Your task to perform on an android device: empty trash in the gmail app Image 0: 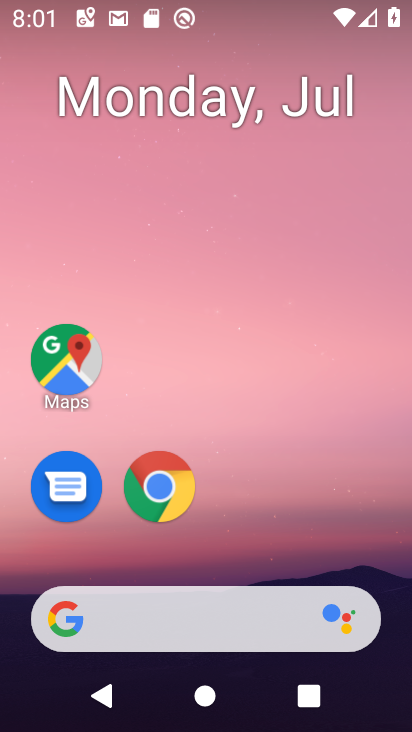
Step 0: drag from (377, 529) to (341, 180)
Your task to perform on an android device: empty trash in the gmail app Image 1: 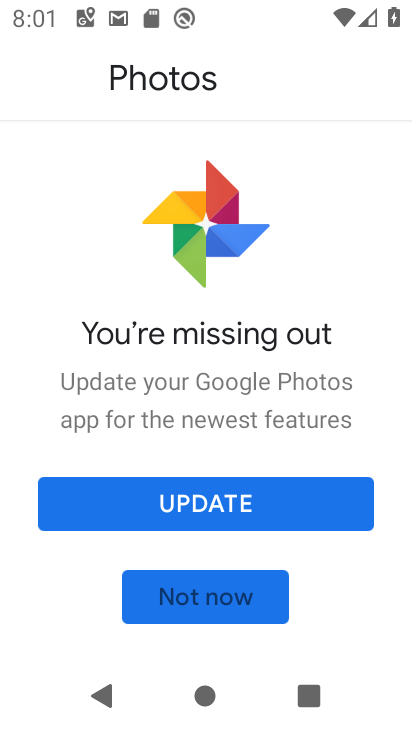
Step 1: press home button
Your task to perform on an android device: empty trash in the gmail app Image 2: 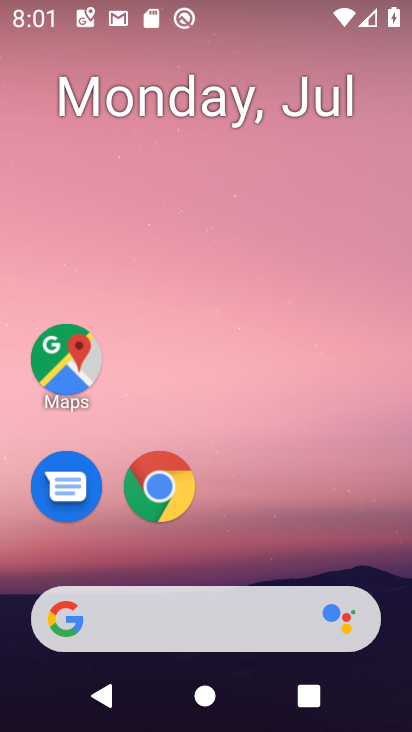
Step 2: drag from (323, 509) to (317, 134)
Your task to perform on an android device: empty trash in the gmail app Image 3: 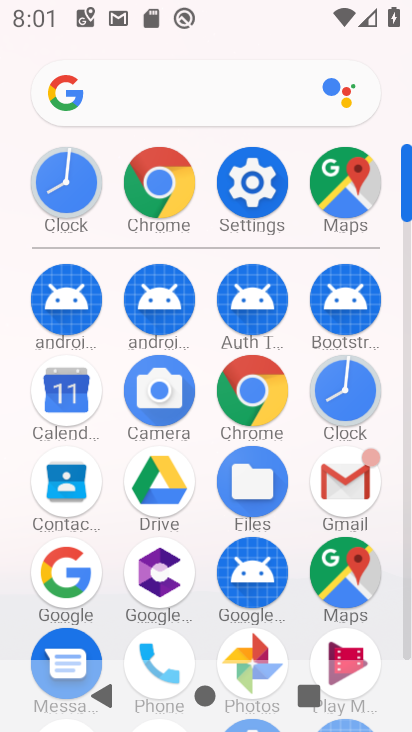
Step 3: click (350, 475)
Your task to perform on an android device: empty trash in the gmail app Image 4: 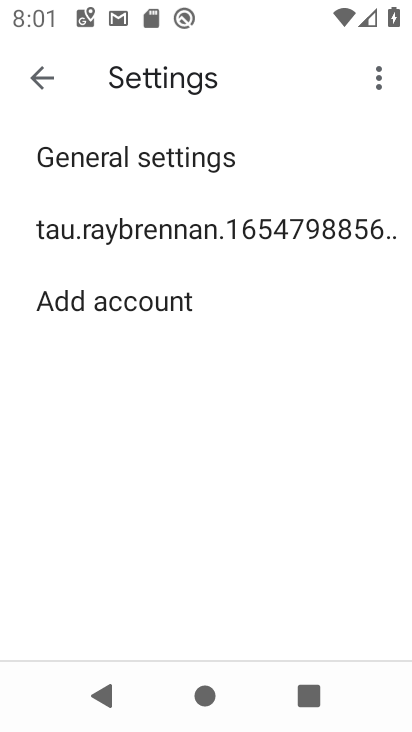
Step 4: press back button
Your task to perform on an android device: empty trash in the gmail app Image 5: 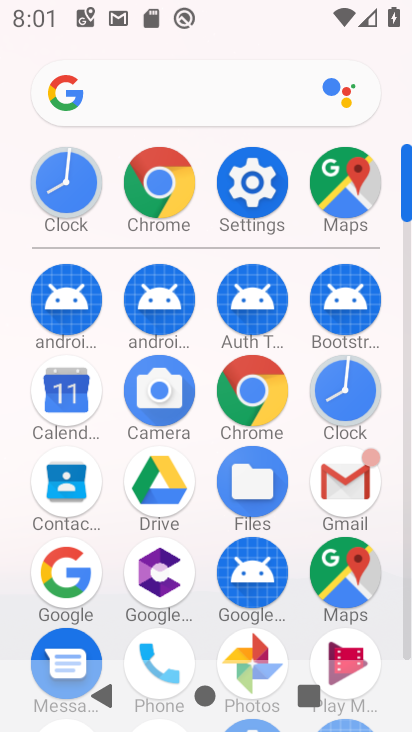
Step 5: click (339, 479)
Your task to perform on an android device: empty trash in the gmail app Image 6: 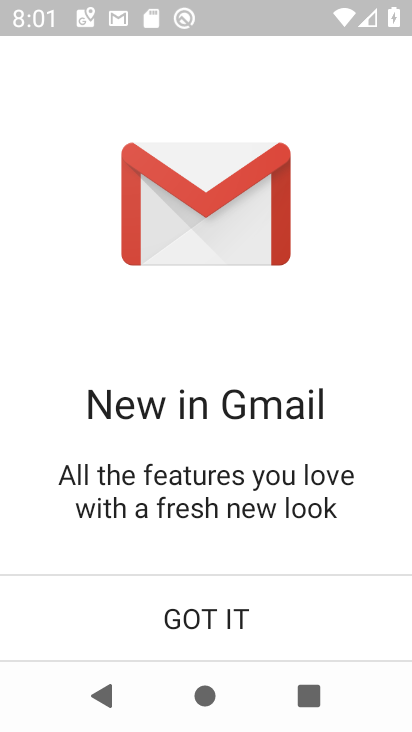
Step 6: click (261, 600)
Your task to perform on an android device: empty trash in the gmail app Image 7: 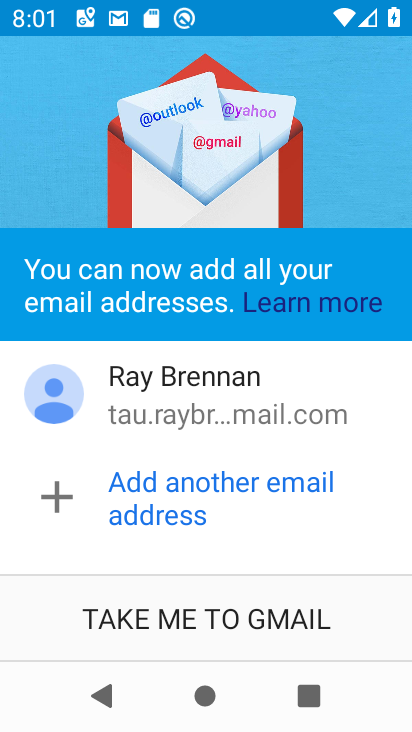
Step 7: click (261, 600)
Your task to perform on an android device: empty trash in the gmail app Image 8: 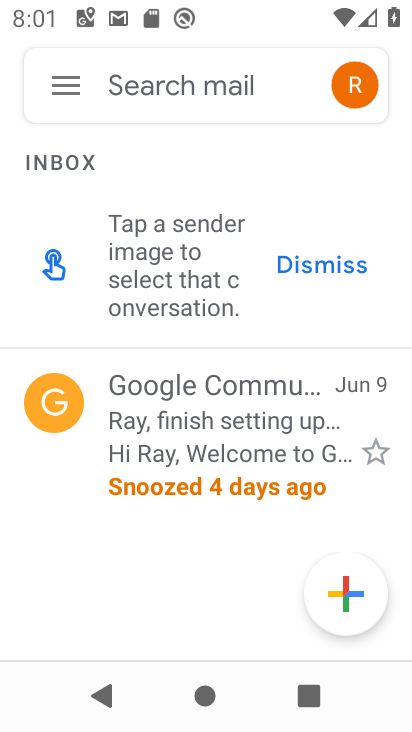
Step 8: click (65, 80)
Your task to perform on an android device: empty trash in the gmail app Image 9: 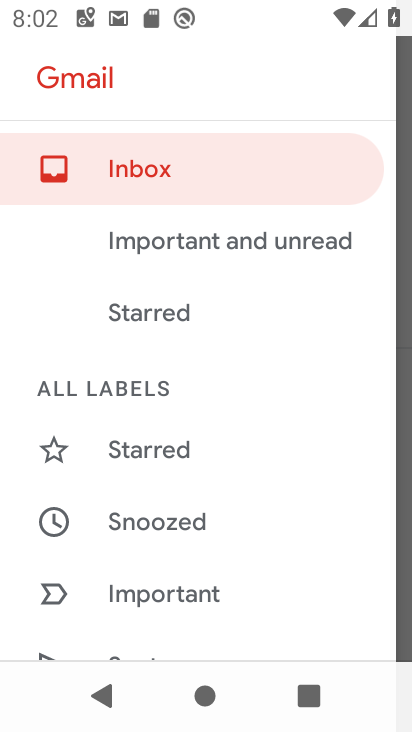
Step 9: drag from (256, 388) to (262, 309)
Your task to perform on an android device: empty trash in the gmail app Image 10: 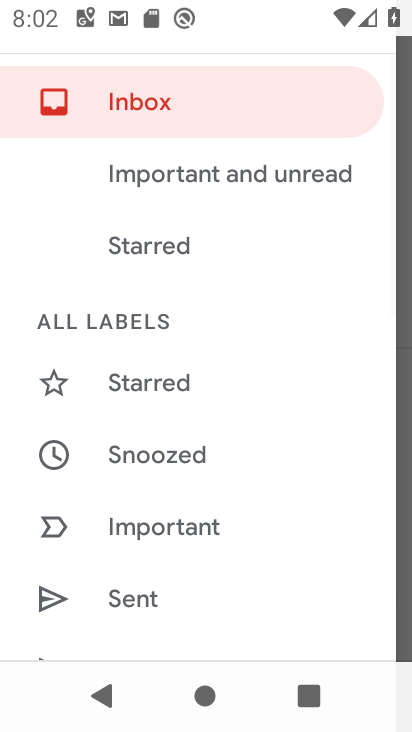
Step 10: drag from (270, 465) to (279, 333)
Your task to perform on an android device: empty trash in the gmail app Image 11: 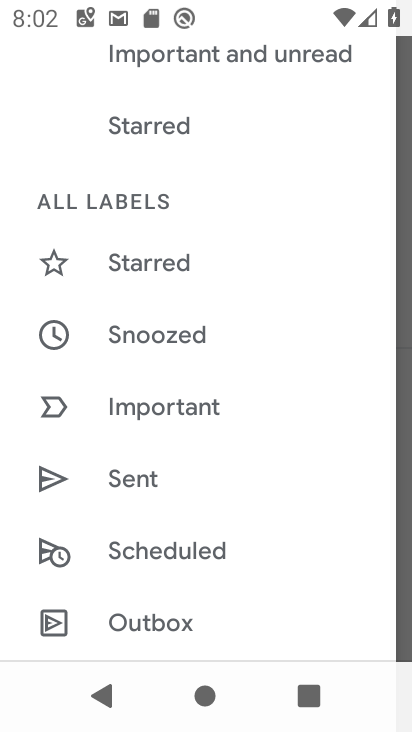
Step 11: drag from (292, 471) to (306, 314)
Your task to perform on an android device: empty trash in the gmail app Image 12: 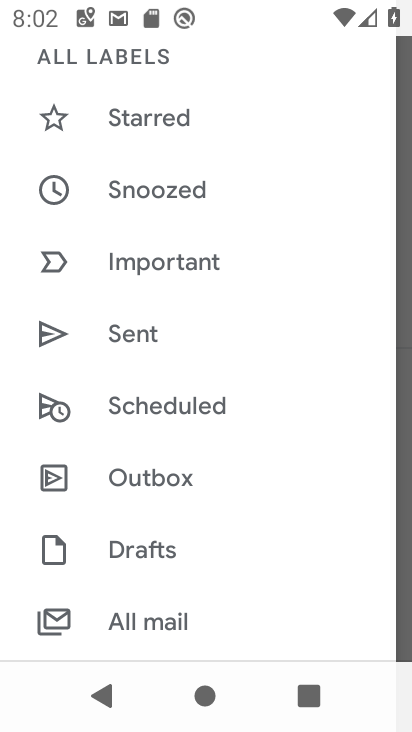
Step 12: drag from (310, 499) to (317, 369)
Your task to perform on an android device: empty trash in the gmail app Image 13: 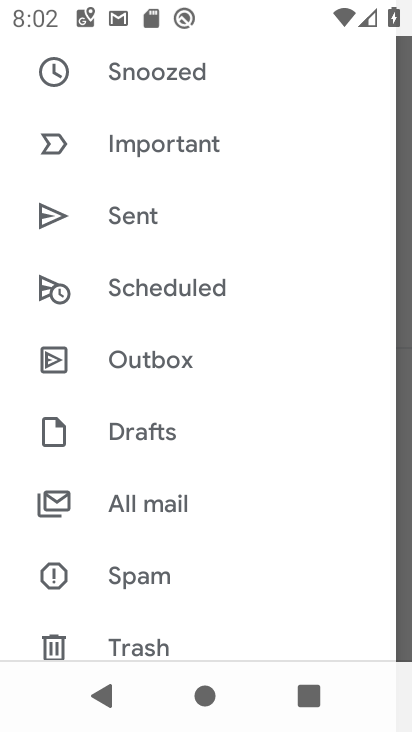
Step 13: drag from (300, 535) to (306, 407)
Your task to perform on an android device: empty trash in the gmail app Image 14: 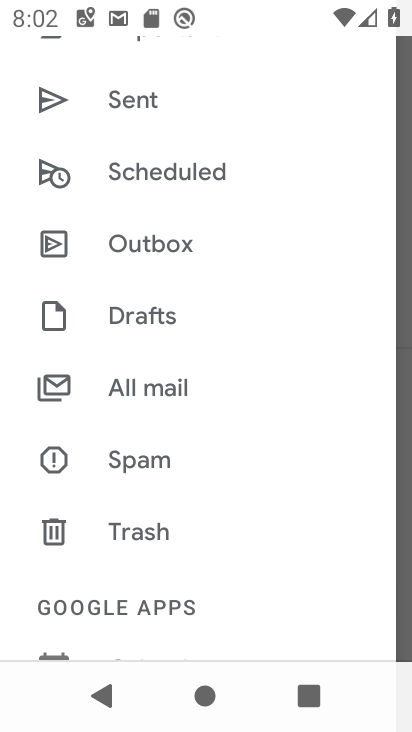
Step 14: click (204, 533)
Your task to perform on an android device: empty trash in the gmail app Image 15: 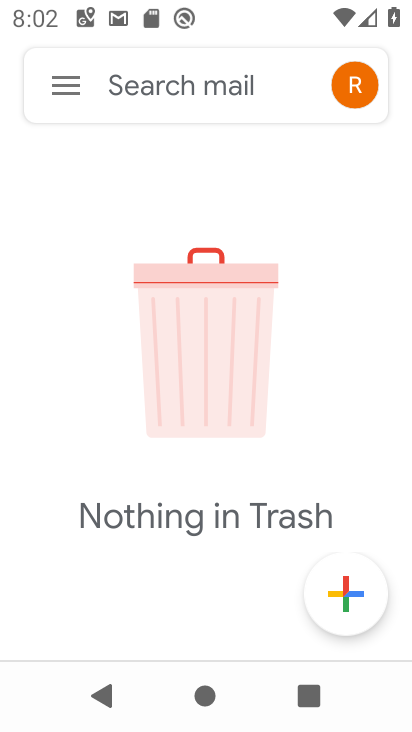
Step 15: task complete